Your task to perform on an android device: Open the calendar app, open the side menu, and click the "Day" option Image 0: 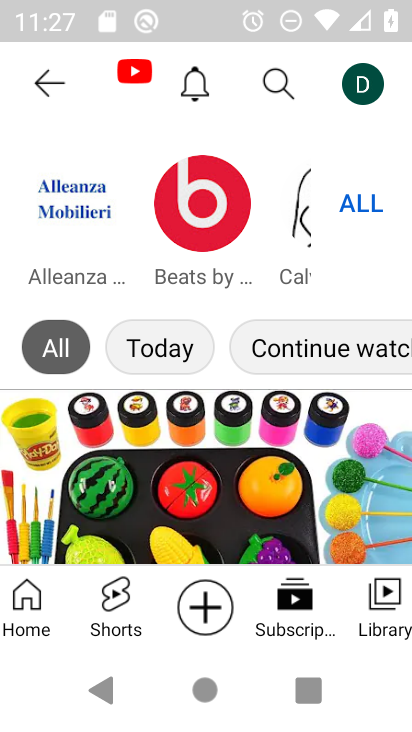
Step 0: press home button
Your task to perform on an android device: Open the calendar app, open the side menu, and click the "Day" option Image 1: 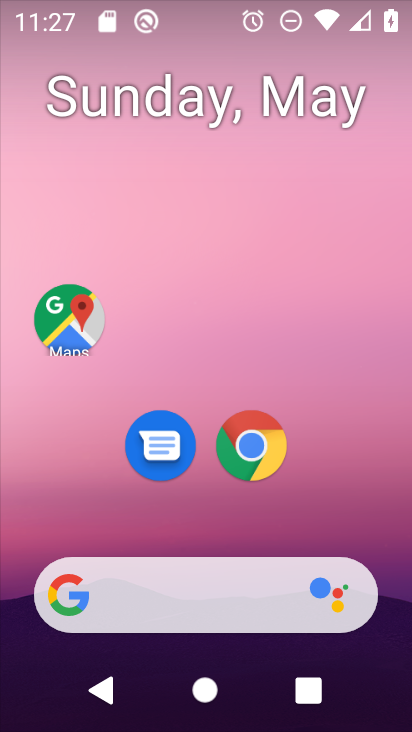
Step 1: drag from (251, 554) to (245, 265)
Your task to perform on an android device: Open the calendar app, open the side menu, and click the "Day" option Image 2: 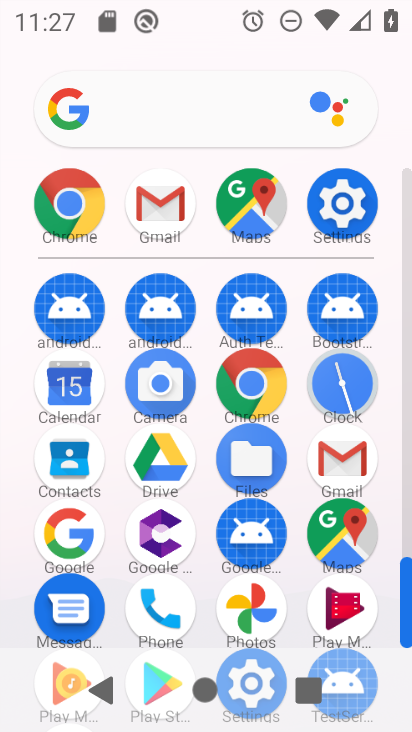
Step 2: drag from (174, 543) to (200, 257)
Your task to perform on an android device: Open the calendar app, open the side menu, and click the "Day" option Image 3: 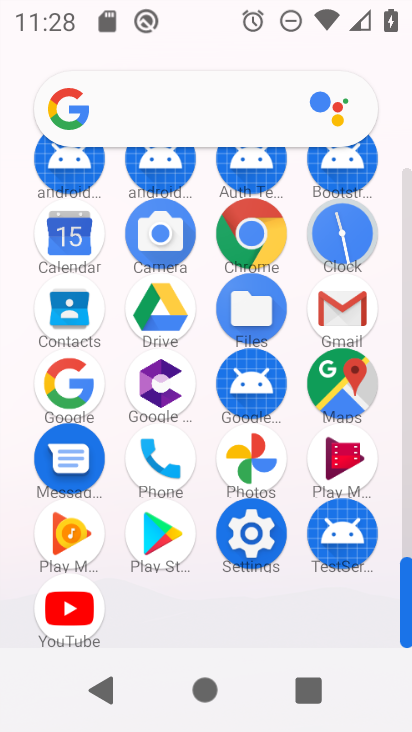
Step 3: drag from (108, 375) to (101, 498)
Your task to perform on an android device: Open the calendar app, open the side menu, and click the "Day" option Image 4: 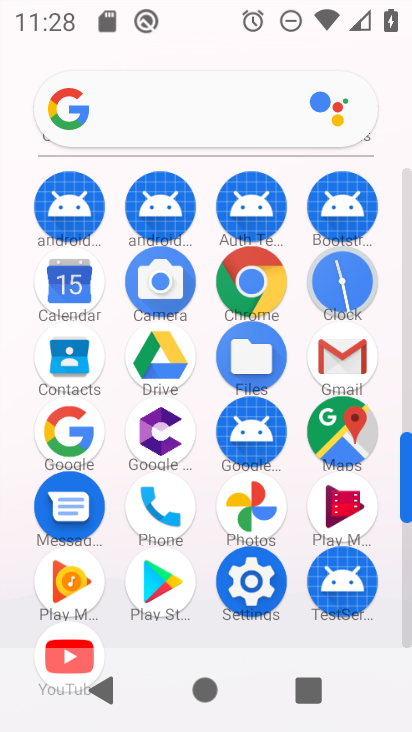
Step 4: click (79, 291)
Your task to perform on an android device: Open the calendar app, open the side menu, and click the "Day" option Image 5: 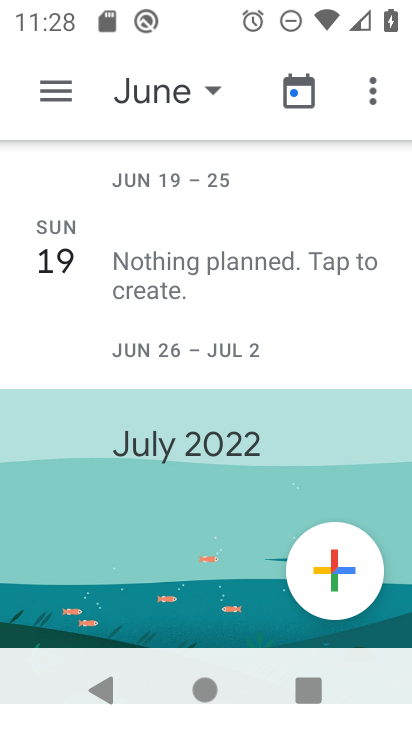
Step 5: click (77, 107)
Your task to perform on an android device: Open the calendar app, open the side menu, and click the "Day" option Image 6: 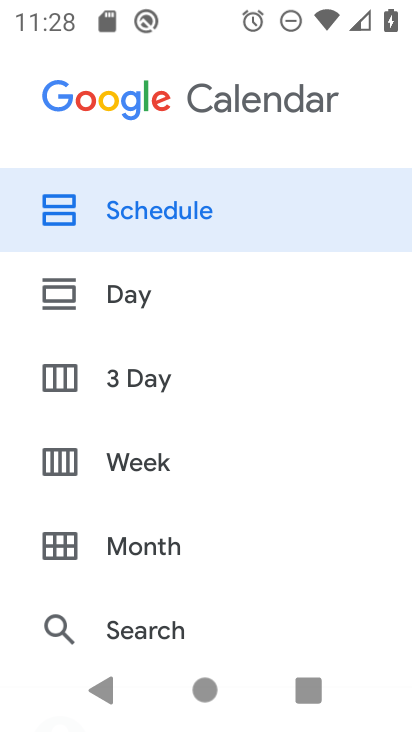
Step 6: click (147, 286)
Your task to perform on an android device: Open the calendar app, open the side menu, and click the "Day" option Image 7: 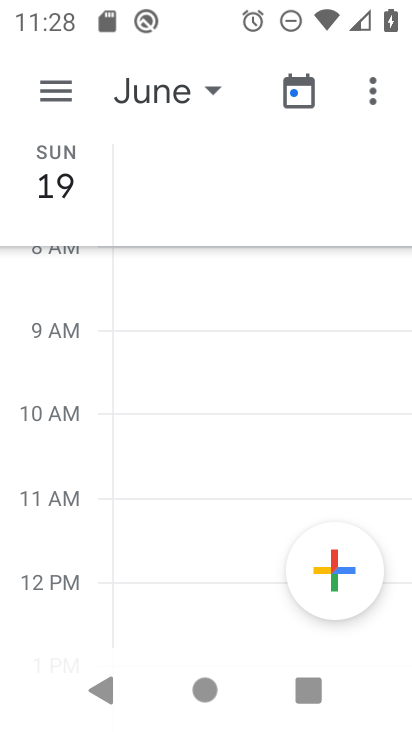
Step 7: task complete